Your task to perform on an android device: turn on the 12-hour format for clock Image 0: 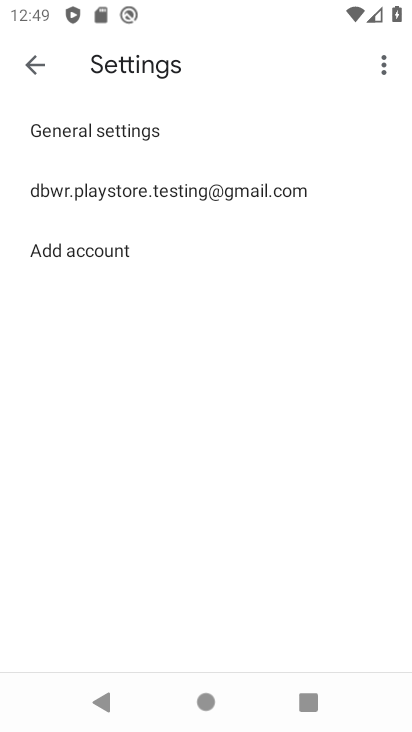
Step 0: press home button
Your task to perform on an android device: turn on the 12-hour format for clock Image 1: 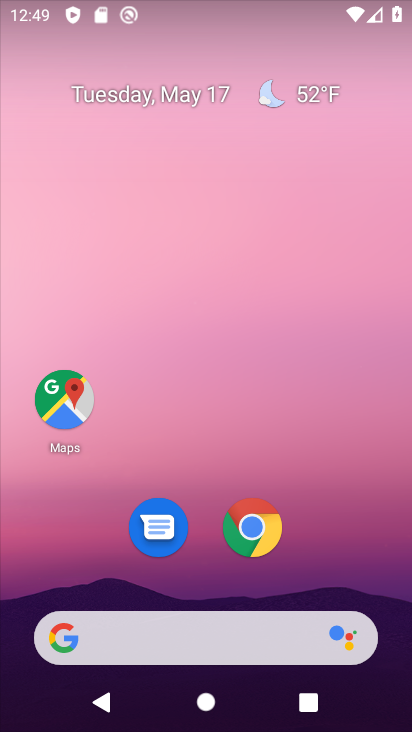
Step 1: drag from (83, 611) to (159, 183)
Your task to perform on an android device: turn on the 12-hour format for clock Image 2: 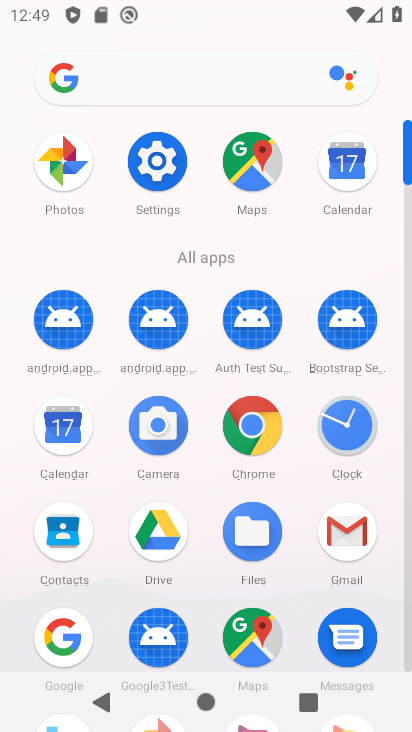
Step 2: drag from (143, 633) to (187, 413)
Your task to perform on an android device: turn on the 12-hour format for clock Image 3: 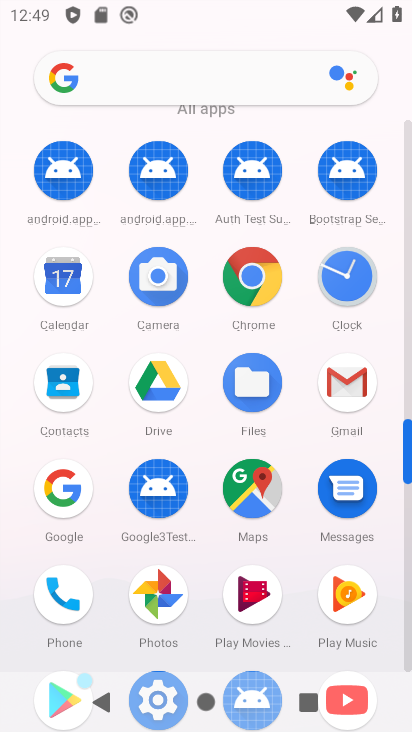
Step 3: click (353, 291)
Your task to perform on an android device: turn on the 12-hour format for clock Image 4: 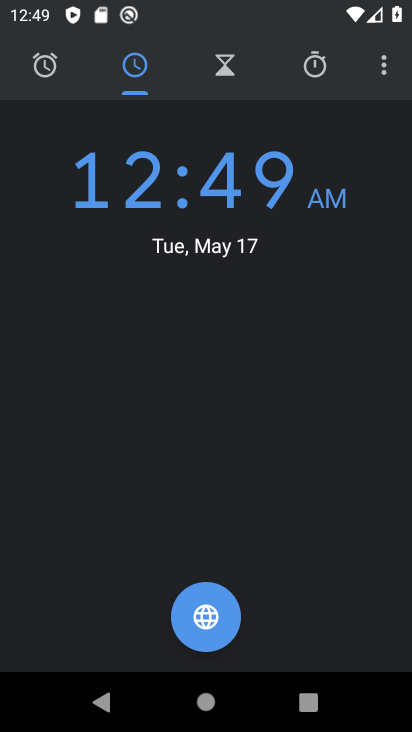
Step 4: click (383, 71)
Your task to perform on an android device: turn on the 12-hour format for clock Image 5: 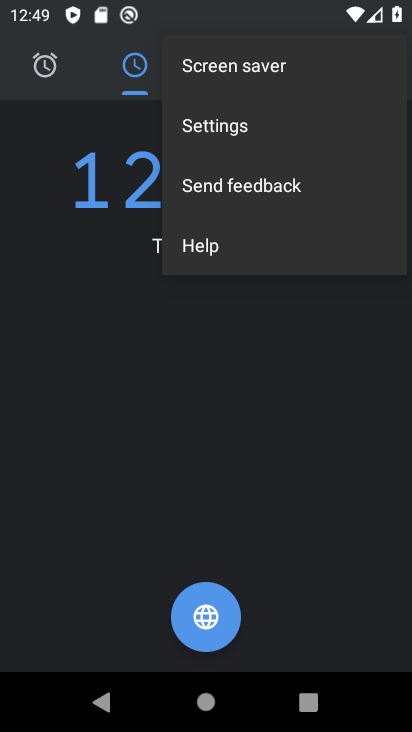
Step 5: click (357, 127)
Your task to perform on an android device: turn on the 12-hour format for clock Image 6: 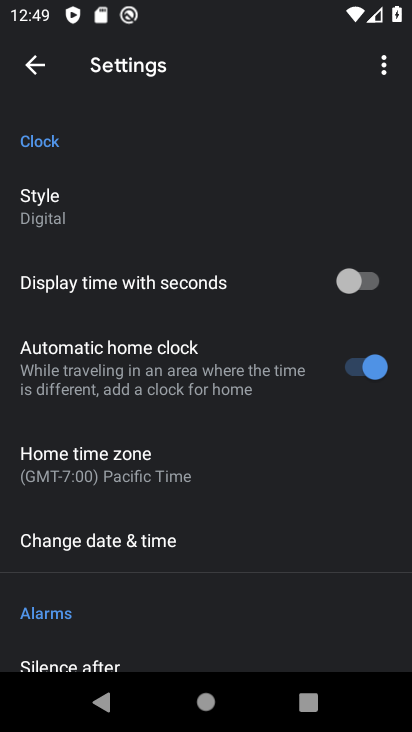
Step 6: drag from (218, 597) to (234, 323)
Your task to perform on an android device: turn on the 12-hour format for clock Image 7: 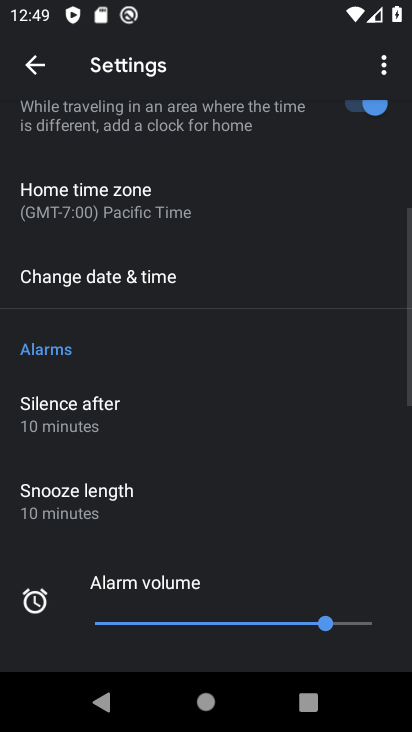
Step 7: click (201, 287)
Your task to perform on an android device: turn on the 12-hour format for clock Image 8: 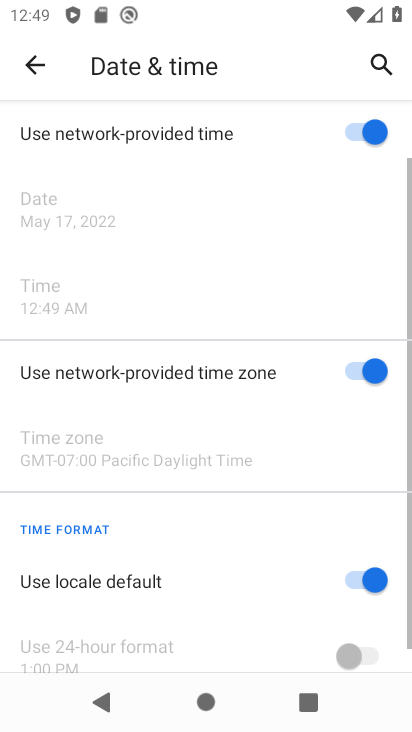
Step 8: task complete